Your task to perform on an android device: Open eBay Image 0: 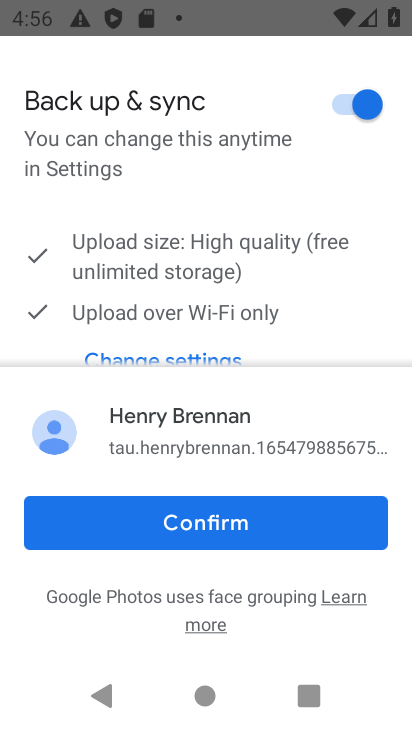
Step 0: press home button
Your task to perform on an android device: Open eBay Image 1: 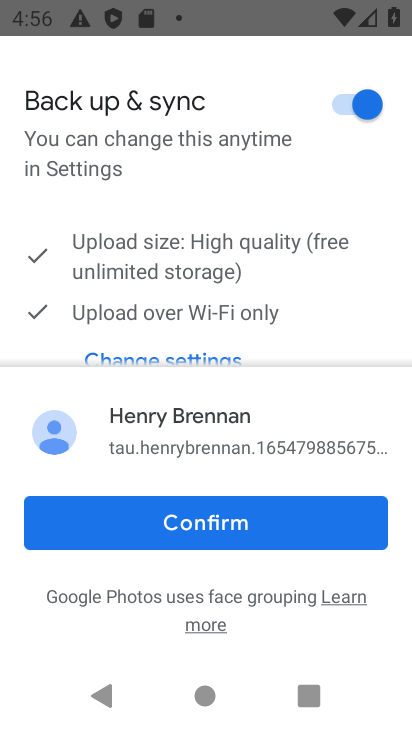
Step 1: press home button
Your task to perform on an android device: Open eBay Image 2: 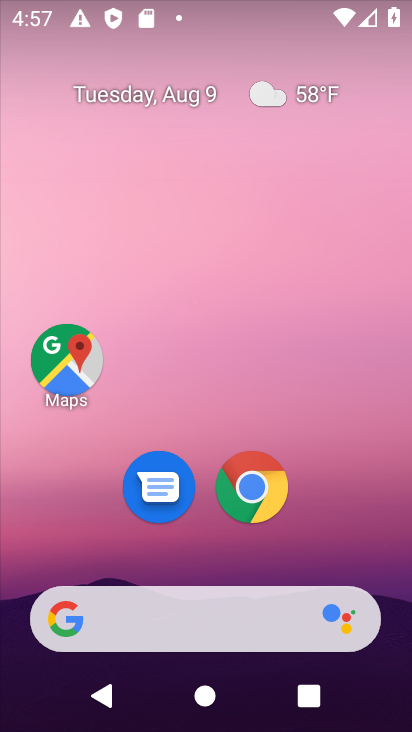
Step 2: drag from (154, 546) to (149, 104)
Your task to perform on an android device: Open eBay Image 3: 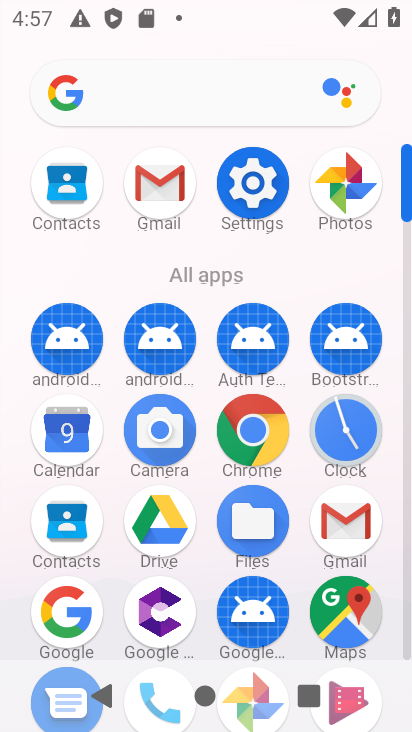
Step 3: click (244, 442)
Your task to perform on an android device: Open eBay Image 4: 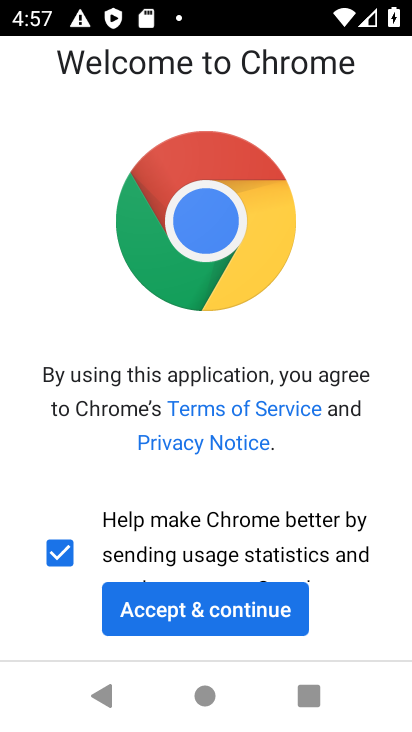
Step 4: click (258, 597)
Your task to perform on an android device: Open eBay Image 5: 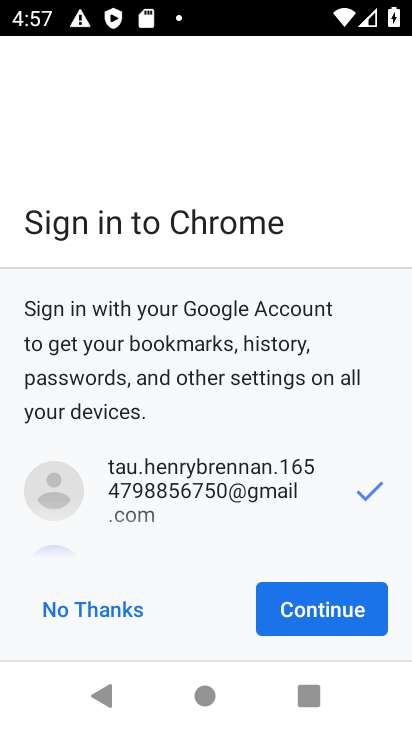
Step 5: click (105, 617)
Your task to perform on an android device: Open eBay Image 6: 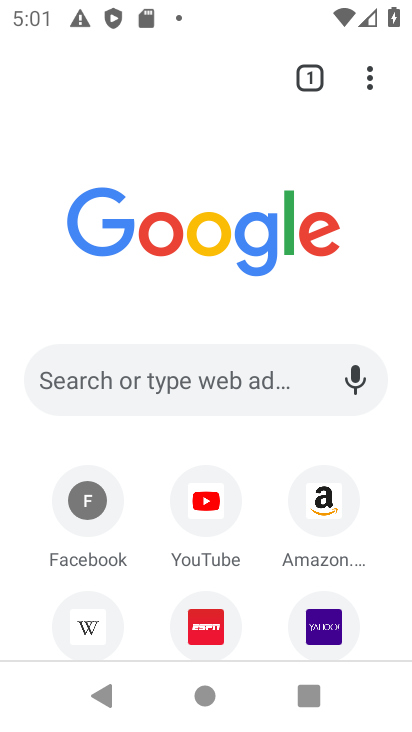
Step 6: drag from (163, 564) to (178, 336)
Your task to perform on an android device: Open eBay Image 7: 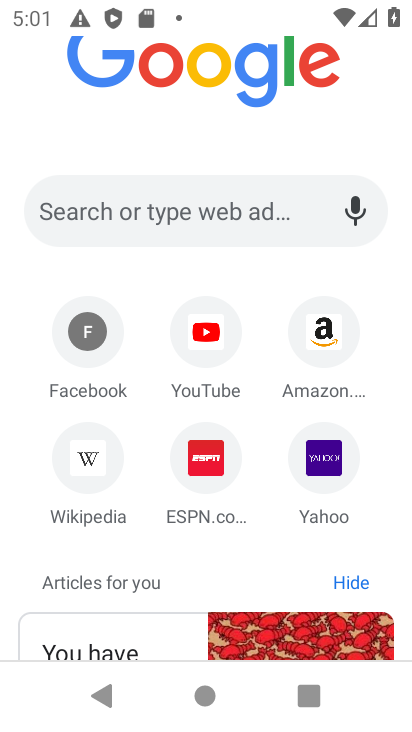
Step 7: click (173, 189)
Your task to perform on an android device: Open eBay Image 8: 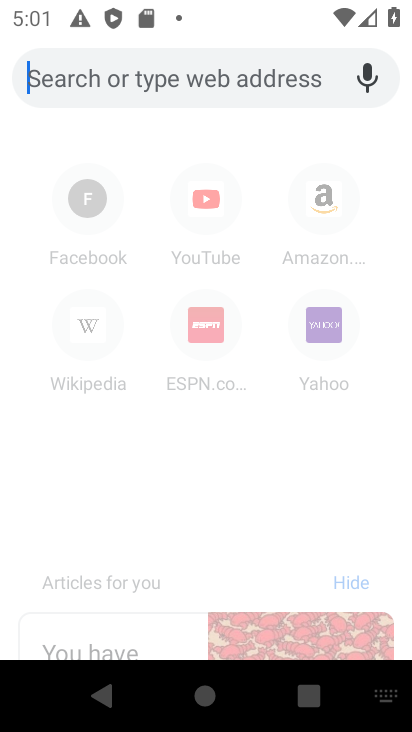
Step 8: type "ebay"
Your task to perform on an android device: Open eBay Image 9: 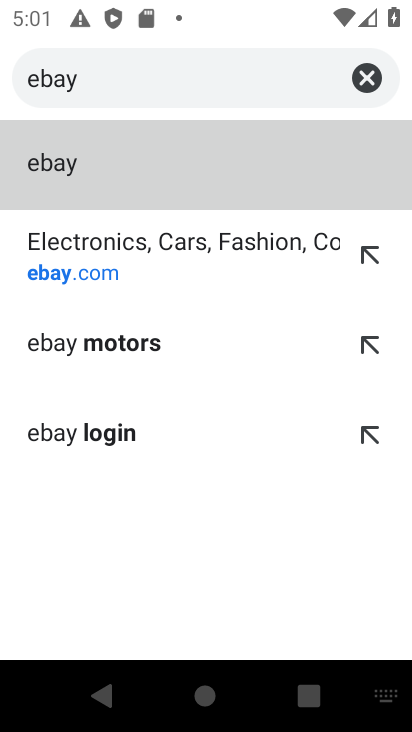
Step 9: click (64, 173)
Your task to perform on an android device: Open eBay Image 10: 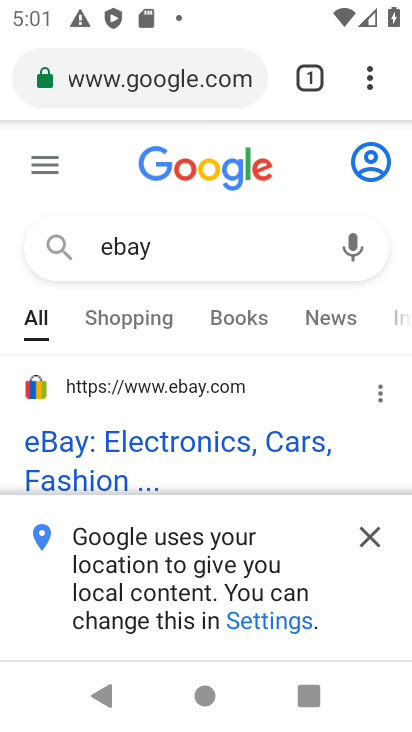
Step 10: click (360, 542)
Your task to perform on an android device: Open eBay Image 11: 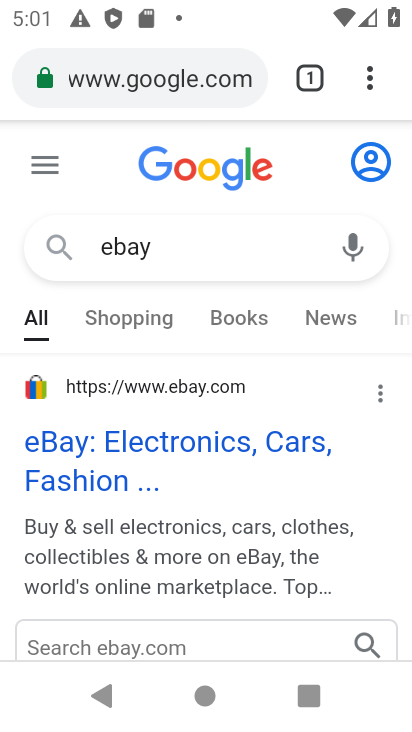
Step 11: click (127, 447)
Your task to perform on an android device: Open eBay Image 12: 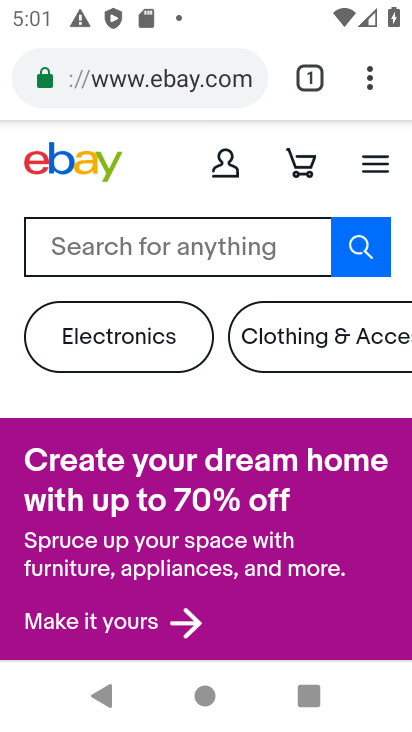
Step 12: task complete